Your task to perform on an android device: Clear all items from cart on costco. Image 0: 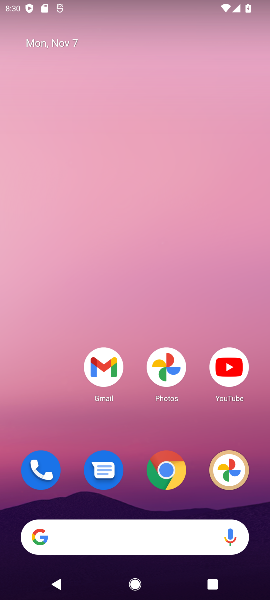
Step 0: click (166, 463)
Your task to perform on an android device: Clear all items from cart on costco. Image 1: 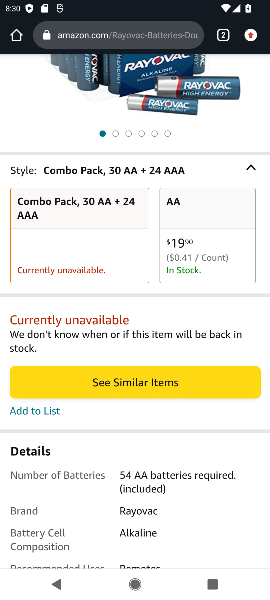
Step 1: click (107, 42)
Your task to perform on an android device: Clear all items from cart on costco. Image 2: 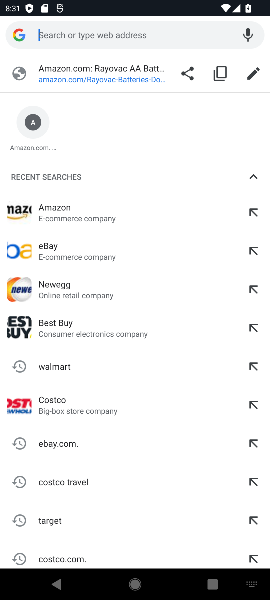
Step 2: type "costco"
Your task to perform on an android device: Clear all items from cart on costco. Image 3: 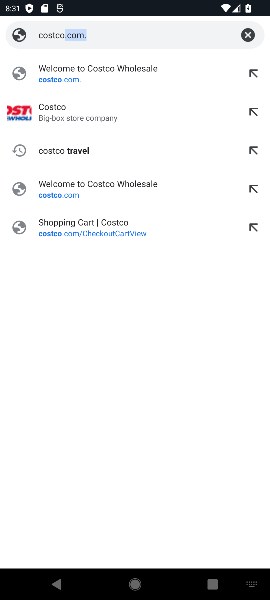
Step 3: click (35, 81)
Your task to perform on an android device: Clear all items from cart on costco. Image 4: 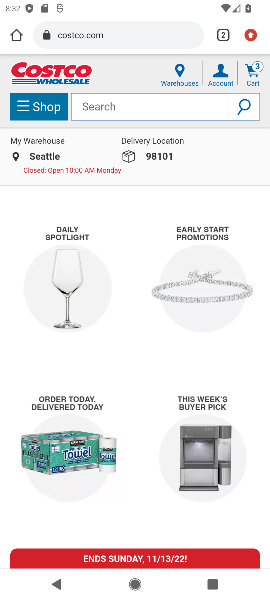
Step 4: click (259, 66)
Your task to perform on an android device: Clear all items from cart on costco. Image 5: 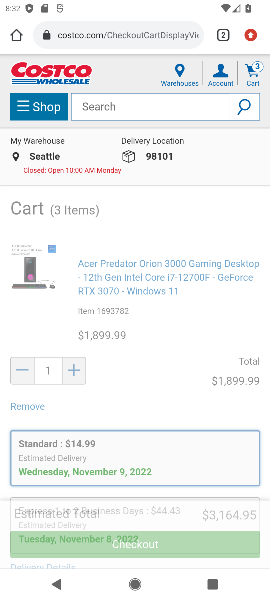
Step 5: click (26, 372)
Your task to perform on an android device: Clear all items from cart on costco. Image 6: 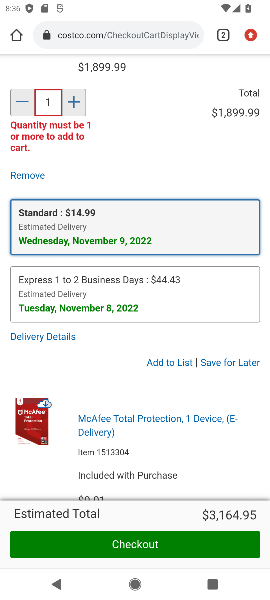
Step 6: task complete